Your task to perform on an android device: turn off translation in the chrome app Image 0: 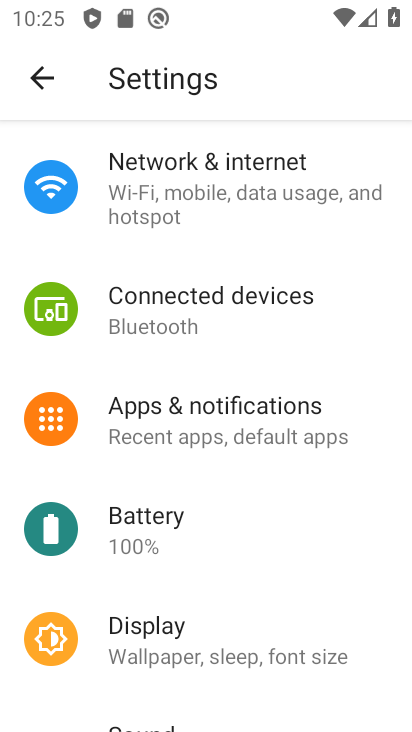
Step 0: press home button
Your task to perform on an android device: turn off translation in the chrome app Image 1: 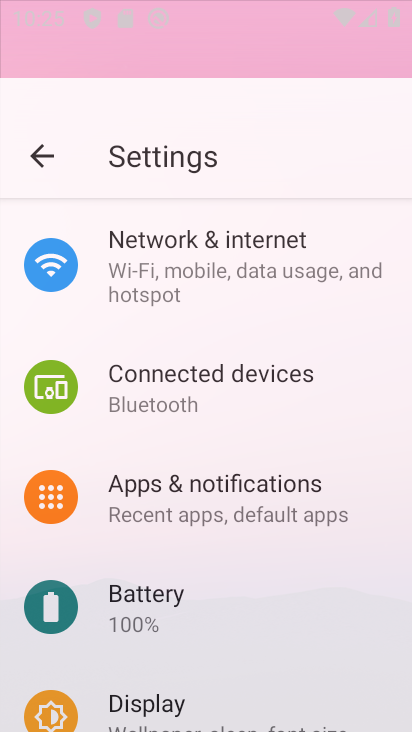
Step 1: press home button
Your task to perform on an android device: turn off translation in the chrome app Image 2: 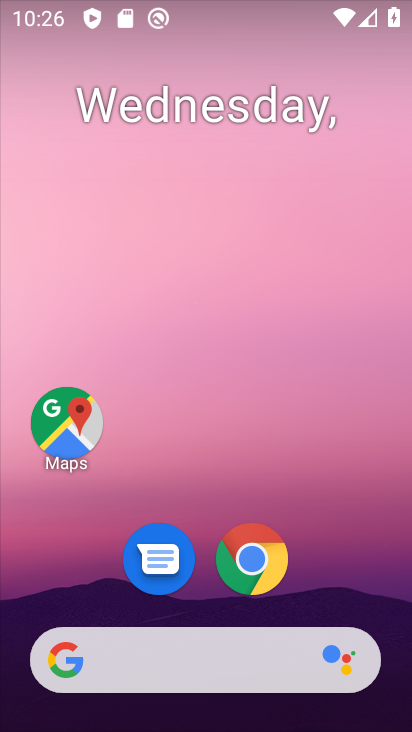
Step 2: click (283, 557)
Your task to perform on an android device: turn off translation in the chrome app Image 3: 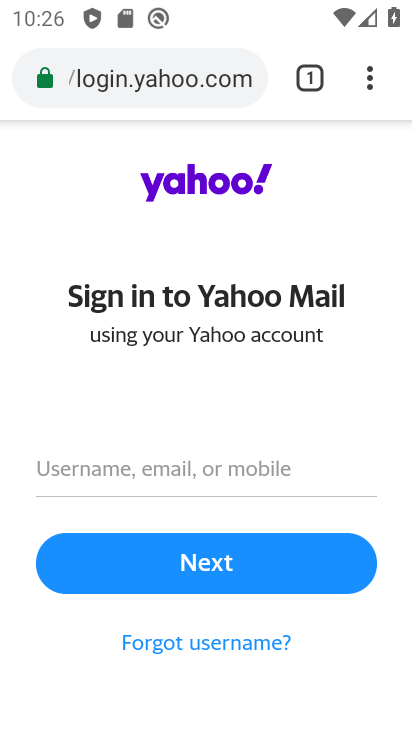
Step 3: drag from (373, 65) to (98, 624)
Your task to perform on an android device: turn off translation in the chrome app Image 4: 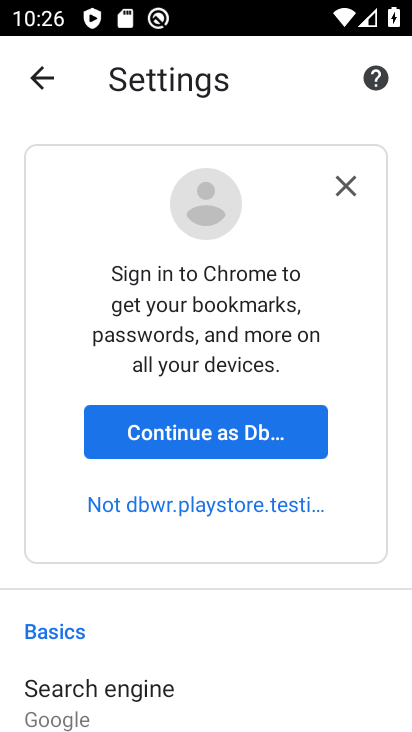
Step 4: drag from (168, 664) to (95, 161)
Your task to perform on an android device: turn off translation in the chrome app Image 5: 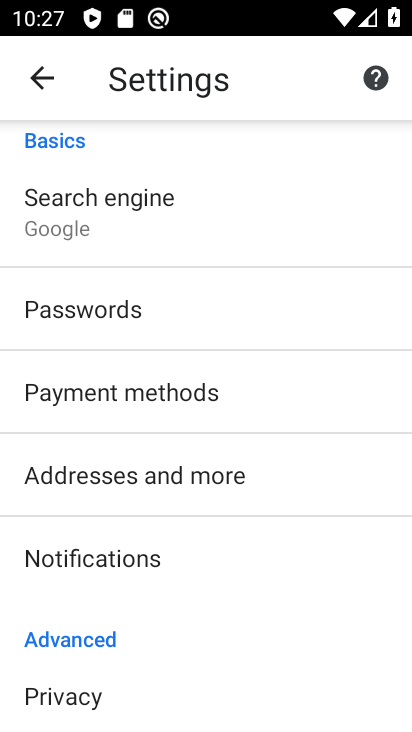
Step 5: drag from (184, 654) to (183, 250)
Your task to perform on an android device: turn off translation in the chrome app Image 6: 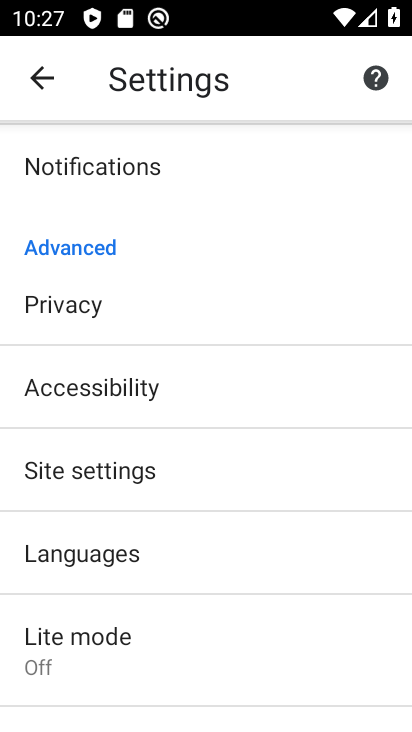
Step 6: click (65, 553)
Your task to perform on an android device: turn off translation in the chrome app Image 7: 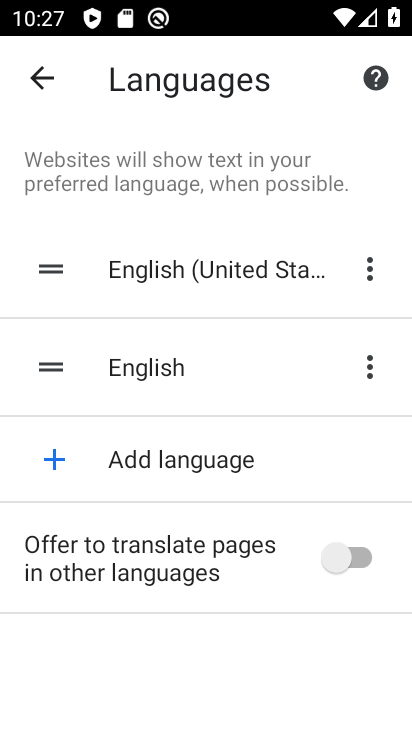
Step 7: task complete